Your task to perform on an android device: open app "AliExpress" (install if not already installed) and enter user name: "orangutan@inbox.com" and password: "Lyons" Image 0: 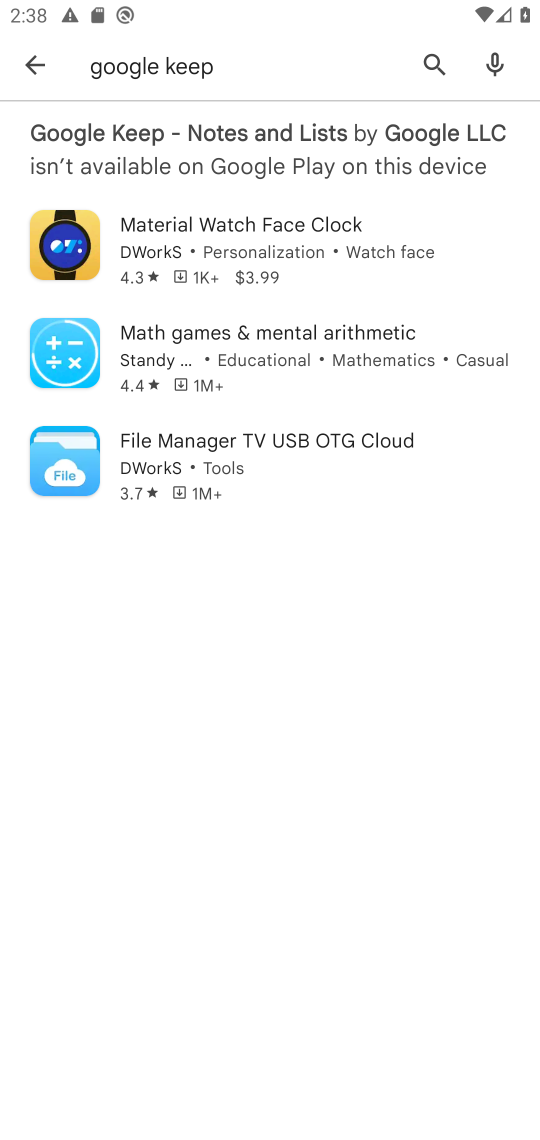
Step 0: press home button
Your task to perform on an android device: open app "AliExpress" (install if not already installed) and enter user name: "orangutan@inbox.com" and password: "Lyons" Image 1: 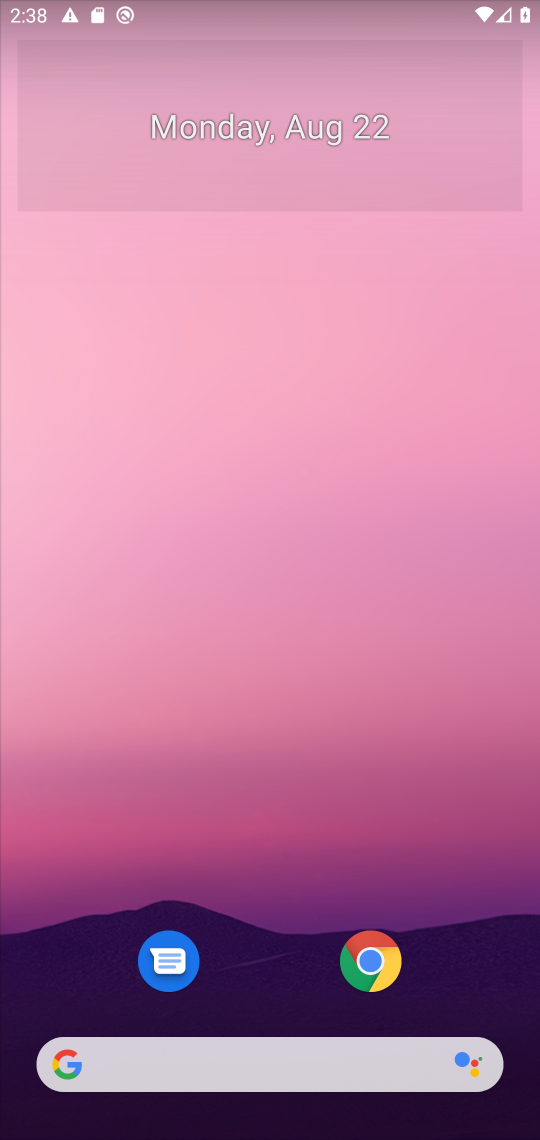
Step 1: drag from (469, 995) to (492, 181)
Your task to perform on an android device: open app "AliExpress" (install if not already installed) and enter user name: "orangutan@inbox.com" and password: "Lyons" Image 2: 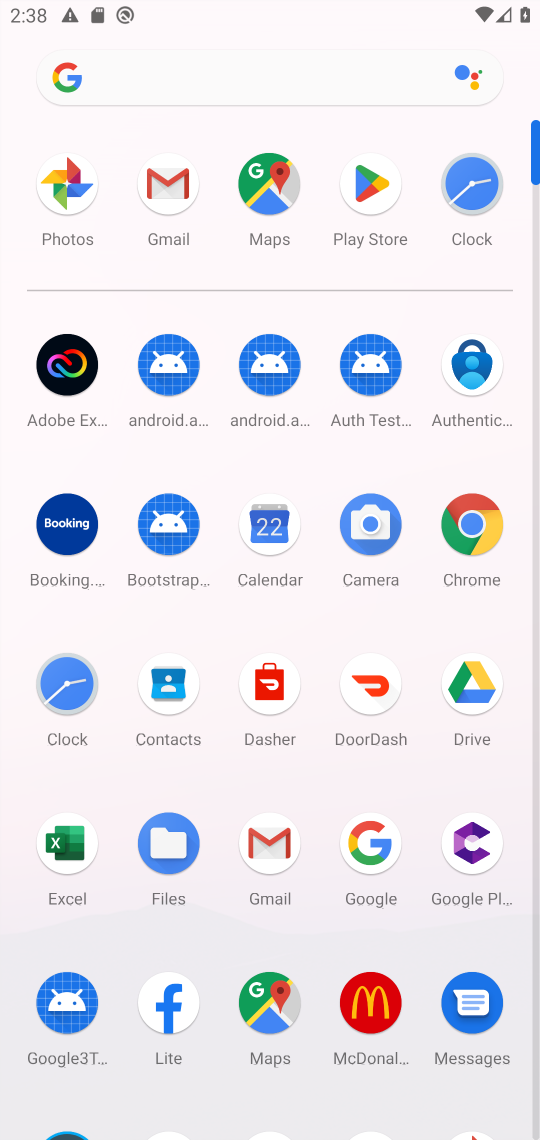
Step 2: click (369, 182)
Your task to perform on an android device: open app "AliExpress" (install if not already installed) and enter user name: "orangutan@inbox.com" and password: "Lyons" Image 3: 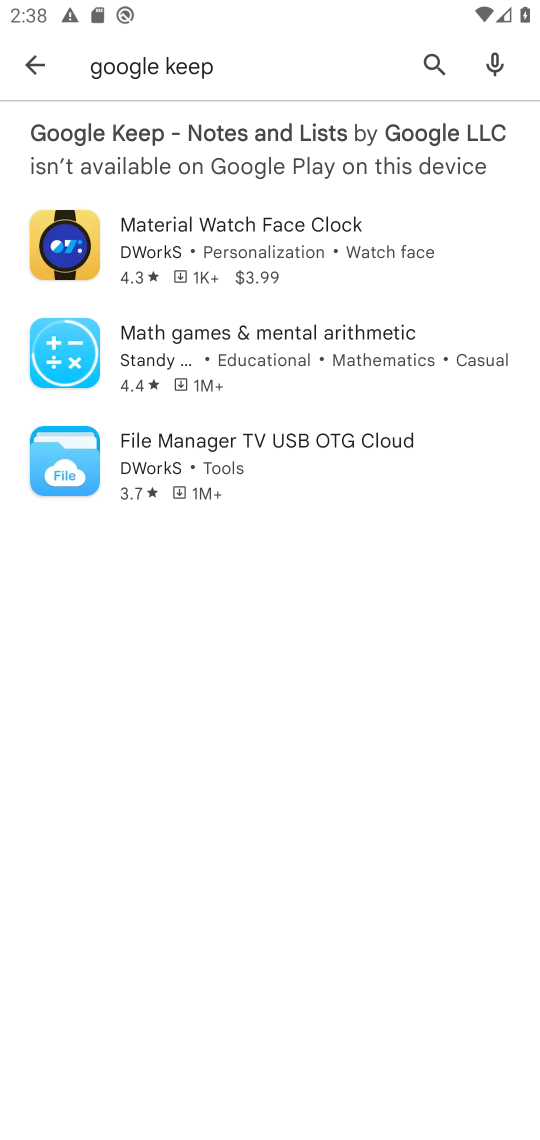
Step 3: press back button
Your task to perform on an android device: open app "AliExpress" (install if not already installed) and enter user name: "orangutan@inbox.com" and password: "Lyons" Image 4: 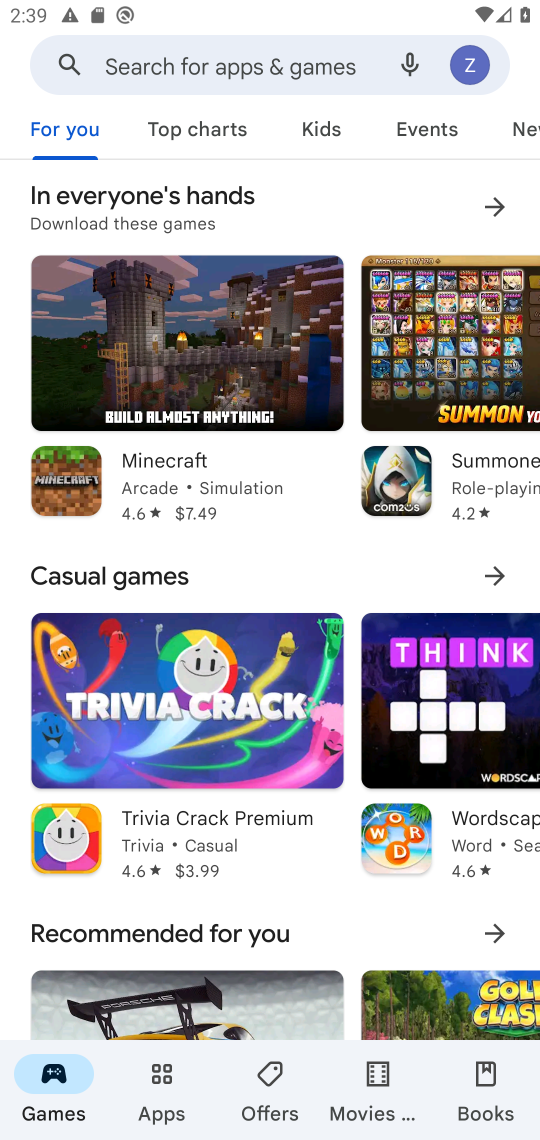
Step 4: click (312, 66)
Your task to perform on an android device: open app "AliExpress" (install if not already installed) and enter user name: "orangutan@inbox.com" and password: "Lyons" Image 5: 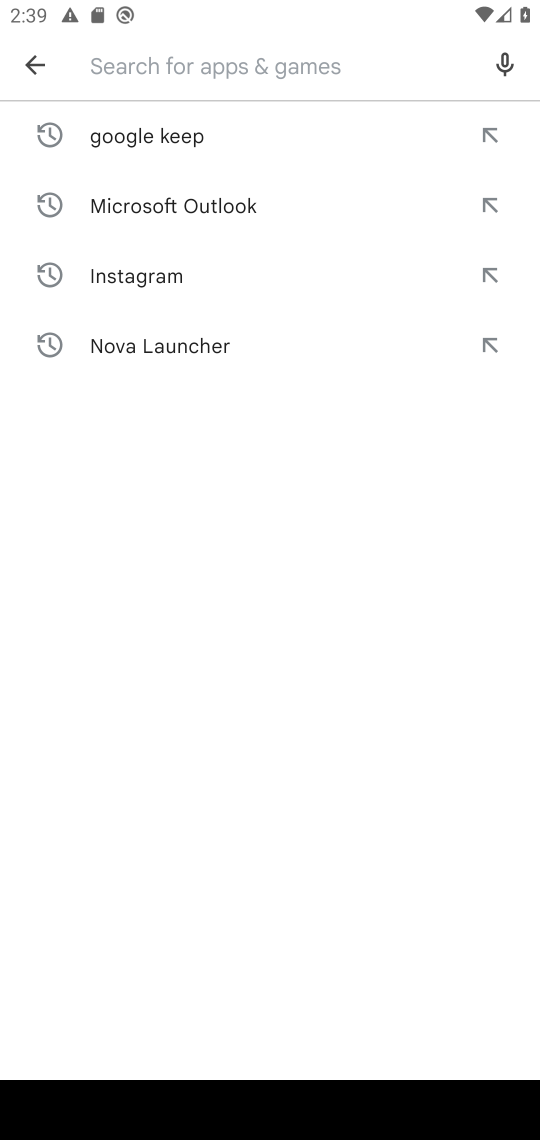
Step 5: type "AliExpress"
Your task to perform on an android device: open app "AliExpress" (install if not already installed) and enter user name: "orangutan@inbox.com" and password: "Lyons" Image 6: 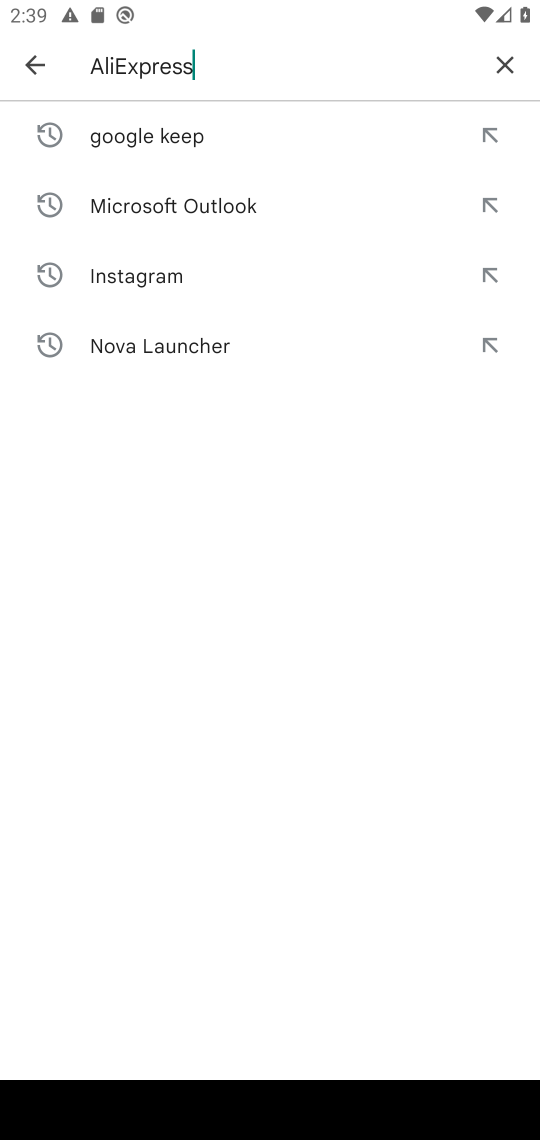
Step 6: press enter
Your task to perform on an android device: open app "AliExpress" (install if not already installed) and enter user name: "orangutan@inbox.com" and password: "Lyons" Image 7: 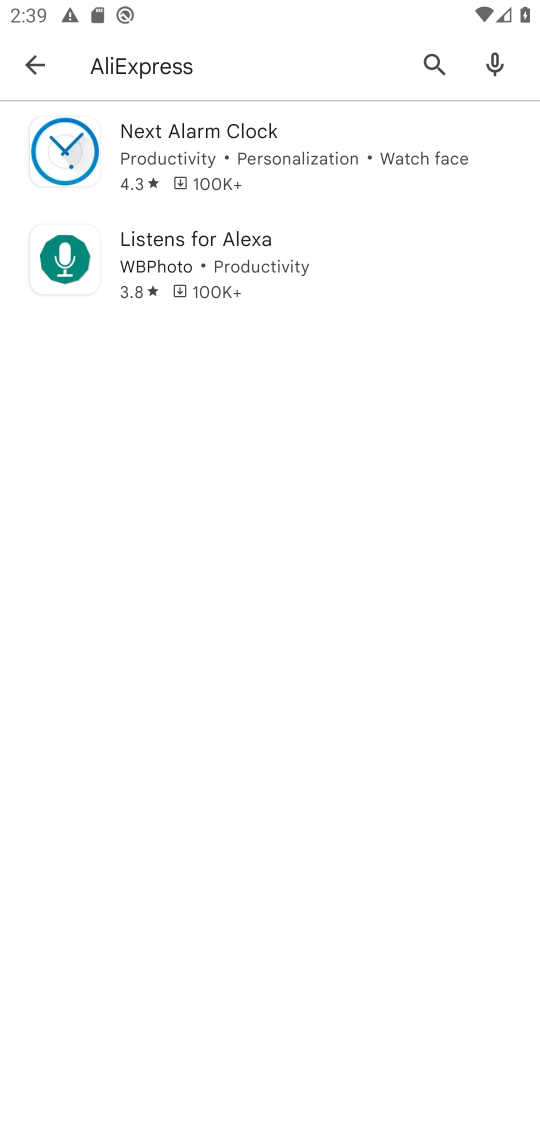
Step 7: task complete